Your task to perform on an android device: find snoozed emails in the gmail app Image 0: 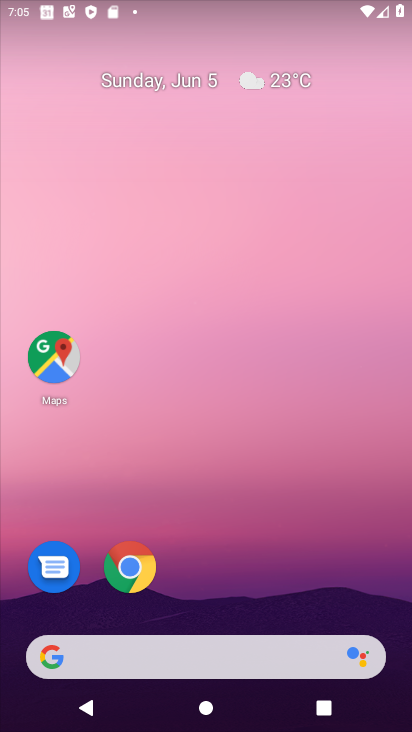
Step 0: drag from (405, 665) to (271, 13)
Your task to perform on an android device: find snoozed emails in the gmail app Image 1: 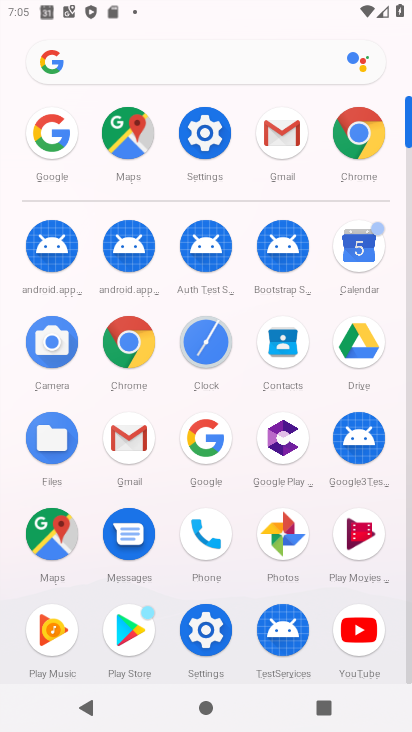
Step 1: click (124, 436)
Your task to perform on an android device: find snoozed emails in the gmail app Image 2: 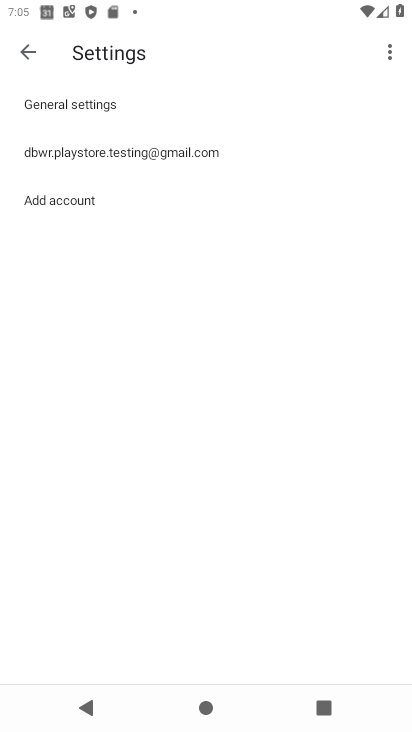
Step 2: press back button
Your task to perform on an android device: find snoozed emails in the gmail app Image 3: 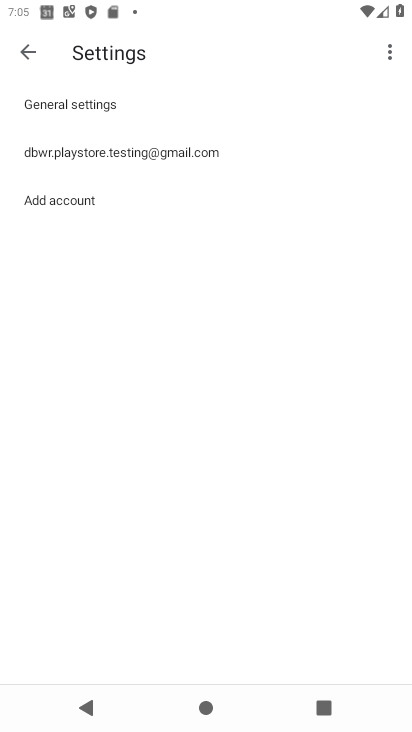
Step 3: press back button
Your task to perform on an android device: find snoozed emails in the gmail app Image 4: 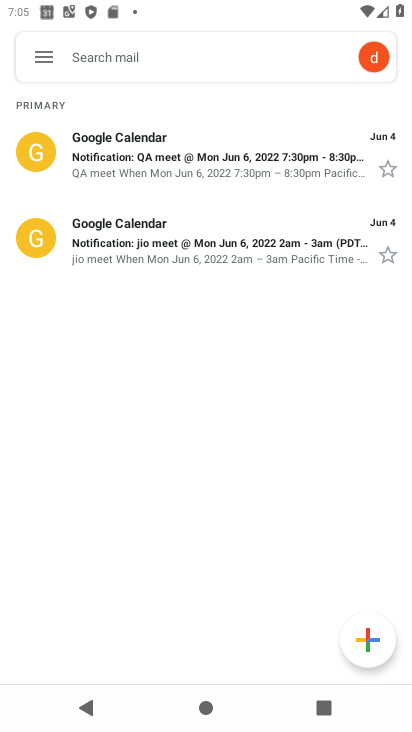
Step 4: click (29, 39)
Your task to perform on an android device: find snoozed emails in the gmail app Image 5: 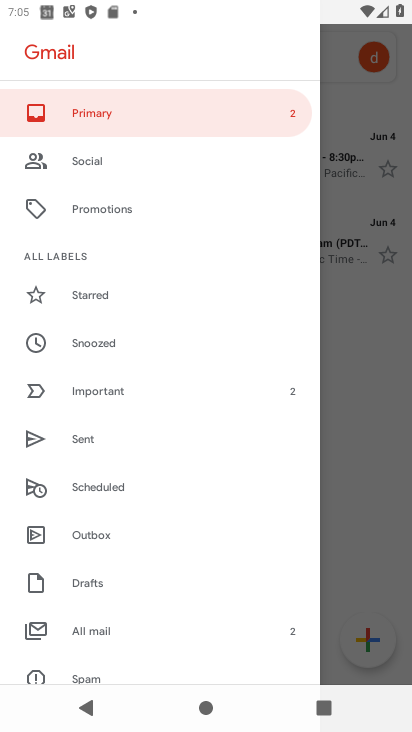
Step 5: click (115, 342)
Your task to perform on an android device: find snoozed emails in the gmail app Image 6: 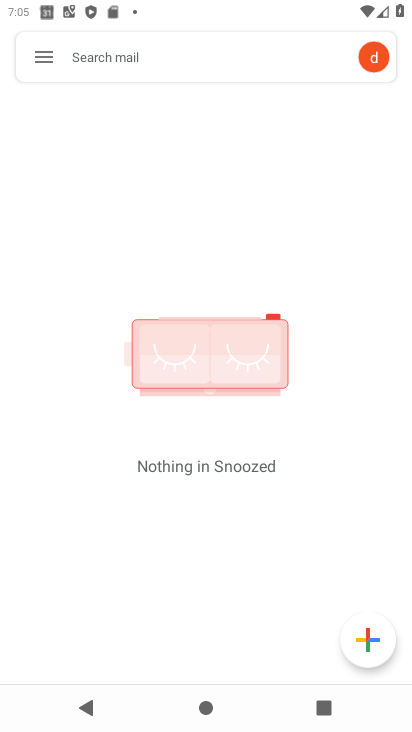
Step 6: task complete